Your task to perform on an android device: snooze an email in the gmail app Image 0: 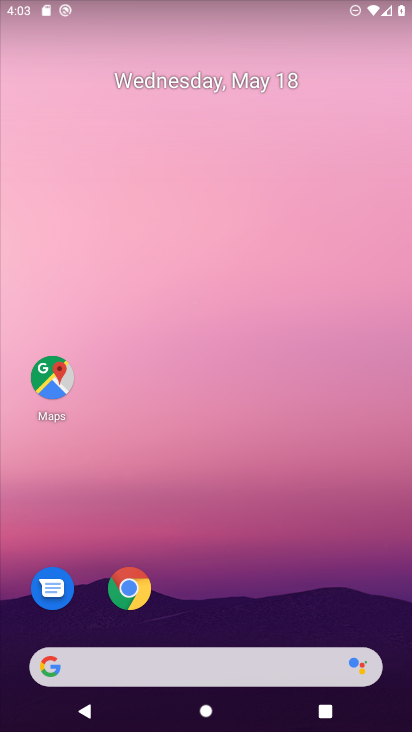
Step 0: drag from (235, 593) to (234, 52)
Your task to perform on an android device: snooze an email in the gmail app Image 1: 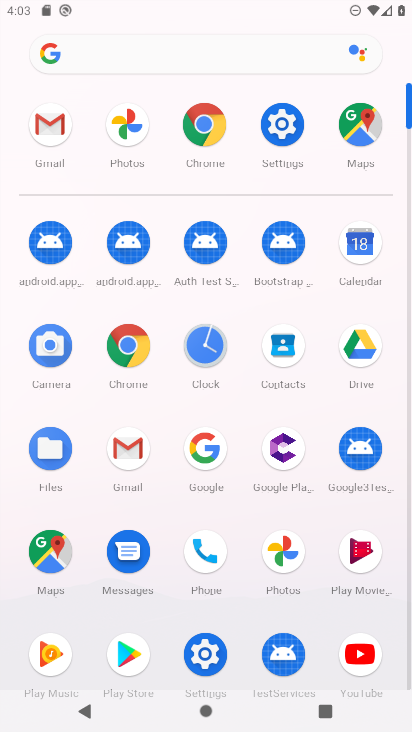
Step 1: click (130, 448)
Your task to perform on an android device: snooze an email in the gmail app Image 2: 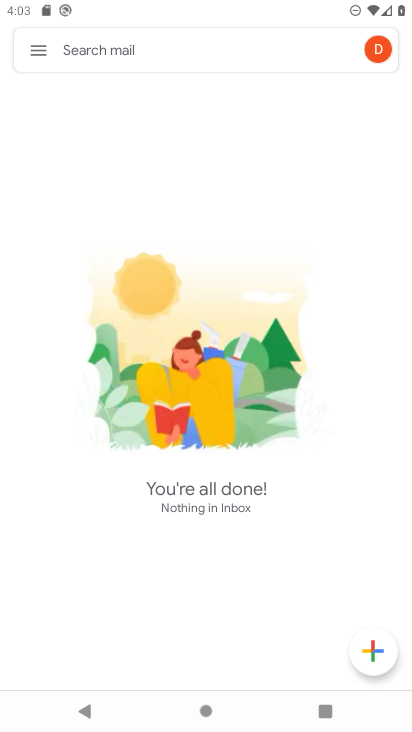
Step 2: click (31, 36)
Your task to perform on an android device: snooze an email in the gmail app Image 3: 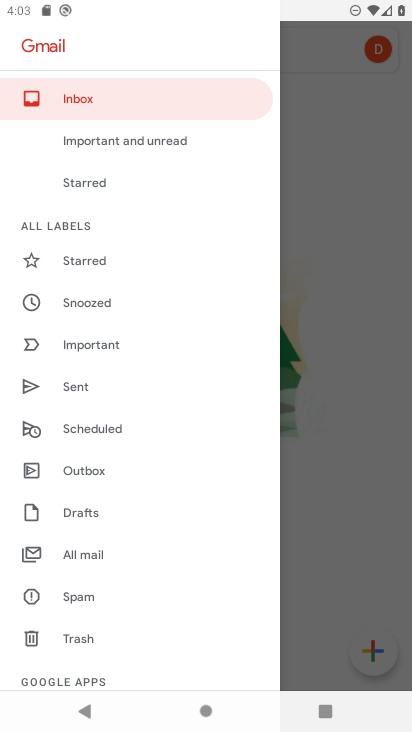
Step 3: click (80, 567)
Your task to perform on an android device: snooze an email in the gmail app Image 4: 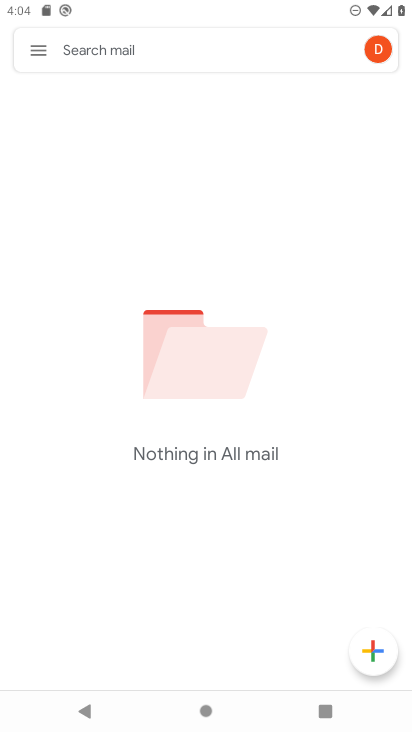
Step 4: task complete